Your task to perform on an android device: Go to network settings Image 0: 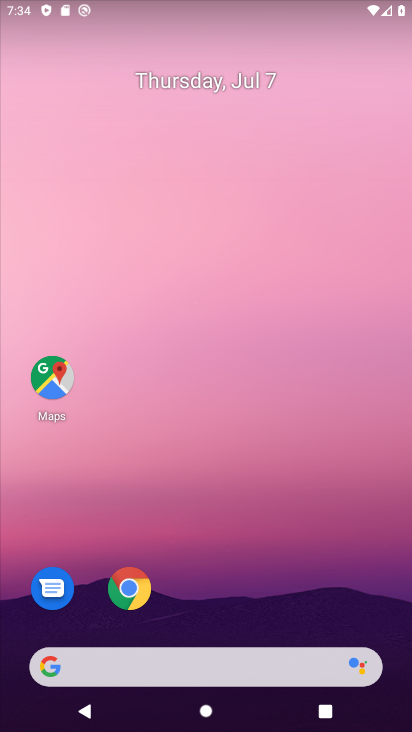
Step 0: drag from (222, 565) to (228, 144)
Your task to perform on an android device: Go to network settings Image 1: 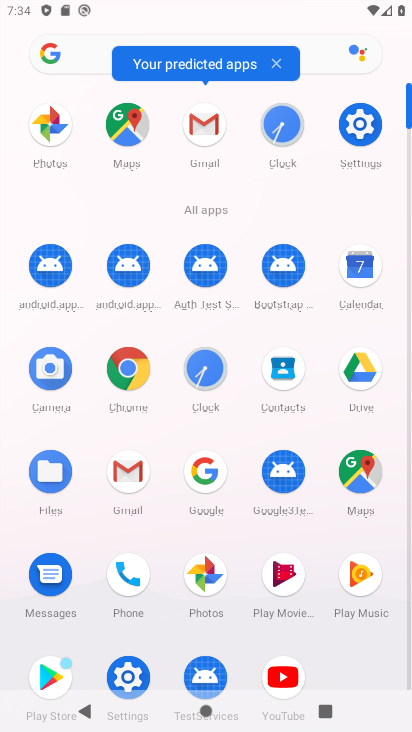
Step 1: click (357, 125)
Your task to perform on an android device: Go to network settings Image 2: 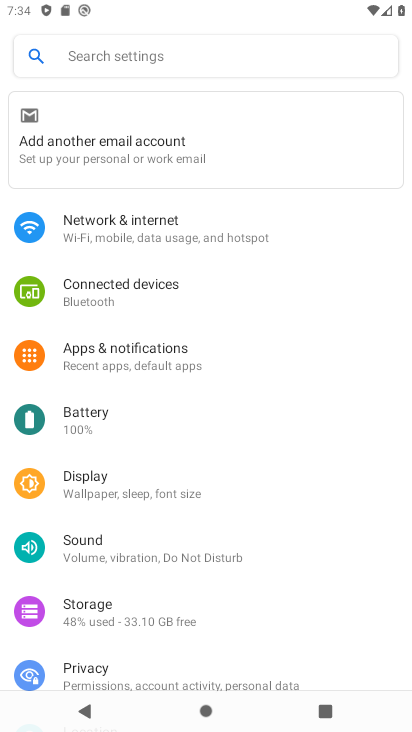
Step 2: click (217, 232)
Your task to perform on an android device: Go to network settings Image 3: 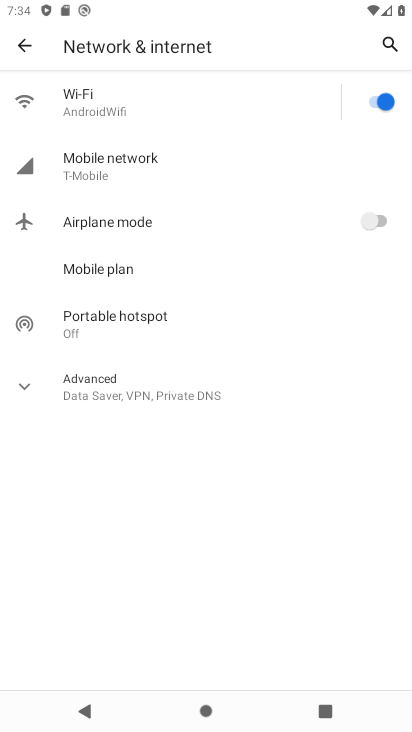
Step 3: task complete